Your task to perform on an android device: visit the assistant section in the google photos Image 0: 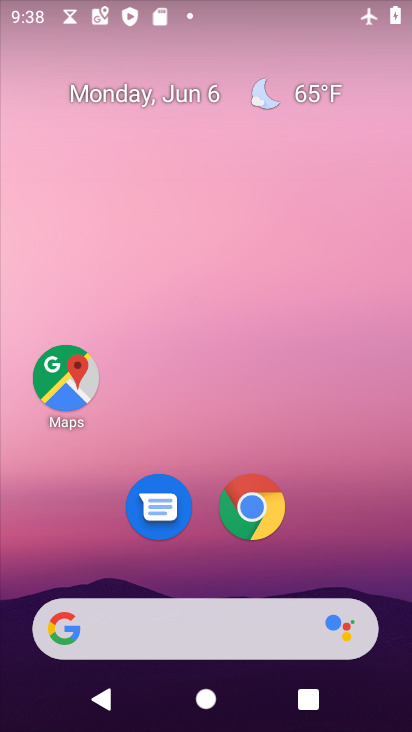
Step 0: drag from (295, 579) to (295, 297)
Your task to perform on an android device: visit the assistant section in the google photos Image 1: 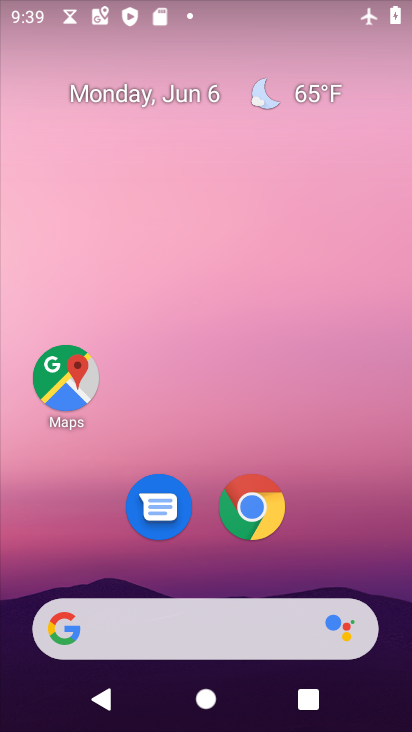
Step 1: drag from (176, 608) to (181, 246)
Your task to perform on an android device: visit the assistant section in the google photos Image 2: 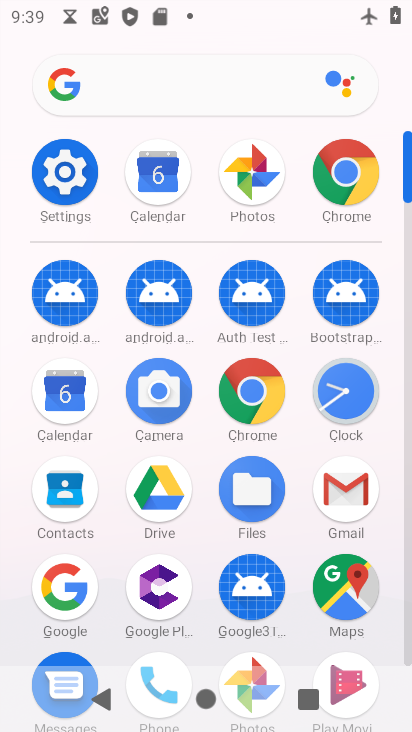
Step 2: drag from (202, 591) to (216, 385)
Your task to perform on an android device: visit the assistant section in the google photos Image 3: 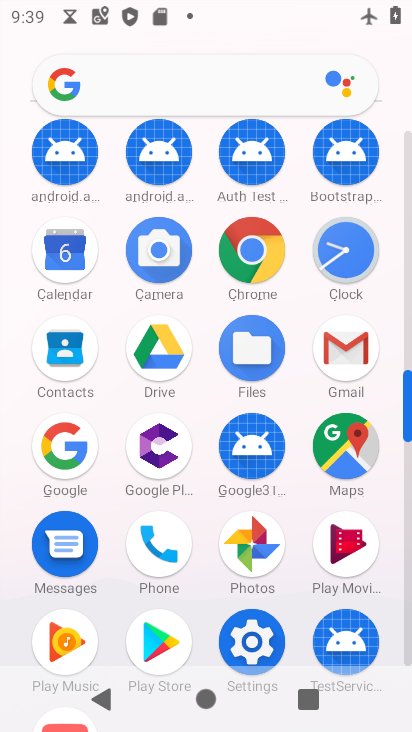
Step 3: click (255, 547)
Your task to perform on an android device: visit the assistant section in the google photos Image 4: 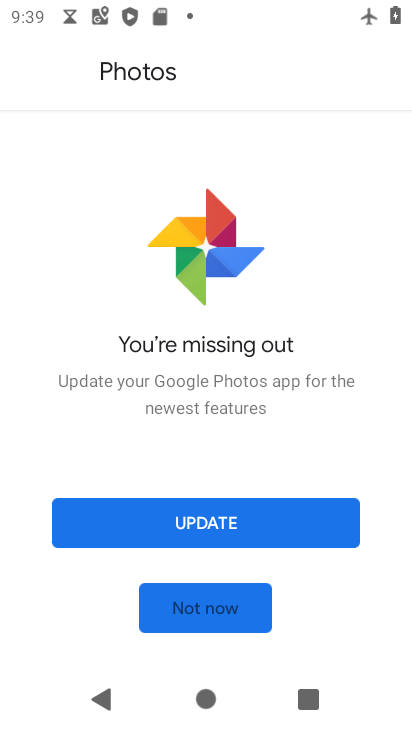
Step 4: click (187, 600)
Your task to perform on an android device: visit the assistant section in the google photos Image 5: 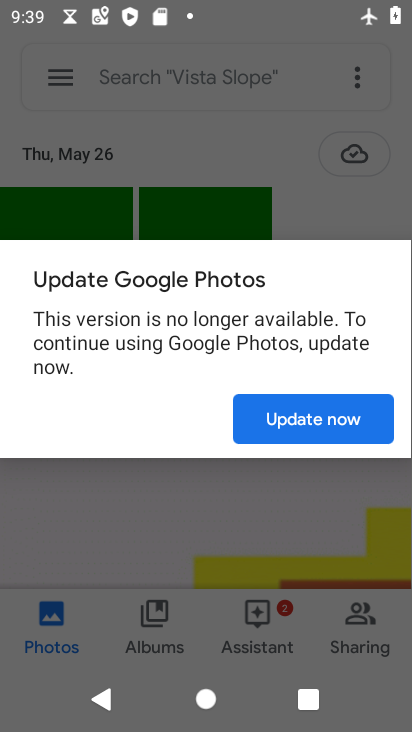
Step 5: click (340, 413)
Your task to perform on an android device: visit the assistant section in the google photos Image 6: 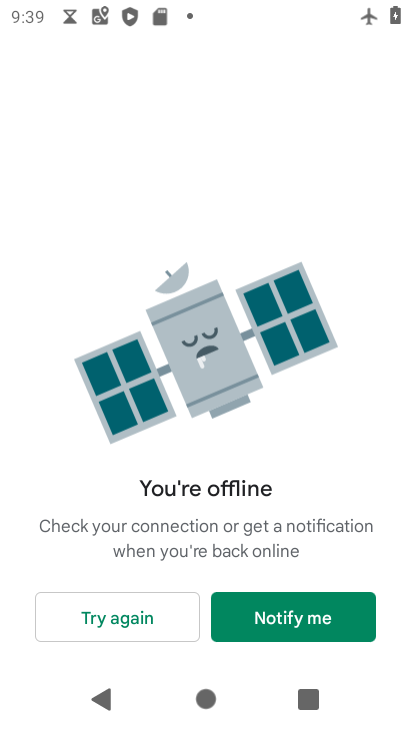
Step 6: press back button
Your task to perform on an android device: visit the assistant section in the google photos Image 7: 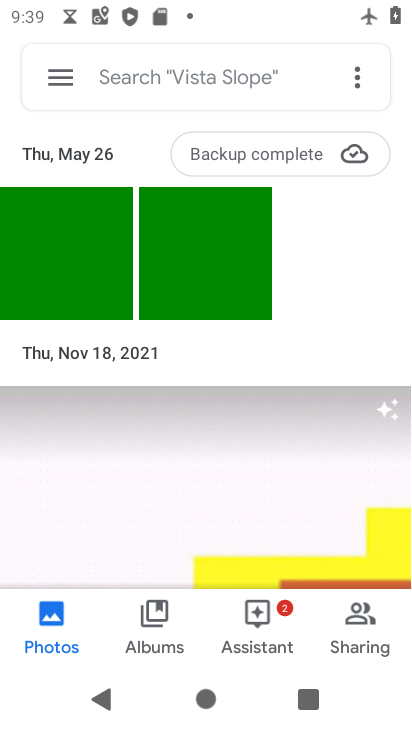
Step 7: click (264, 614)
Your task to perform on an android device: visit the assistant section in the google photos Image 8: 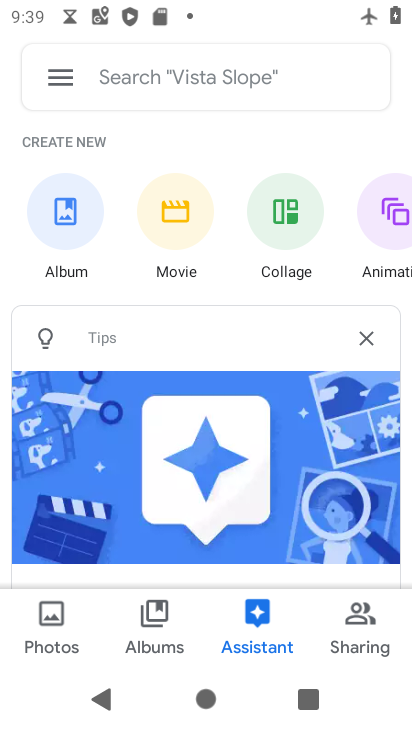
Step 8: task complete